Your task to perform on an android device: Go to Google Image 0: 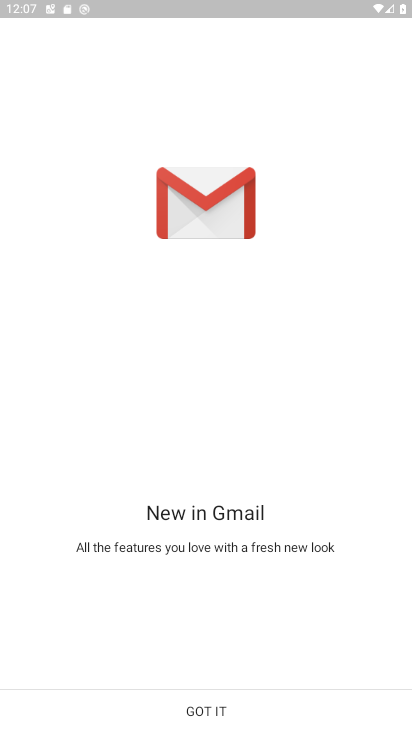
Step 0: press home button
Your task to perform on an android device: Go to Google Image 1: 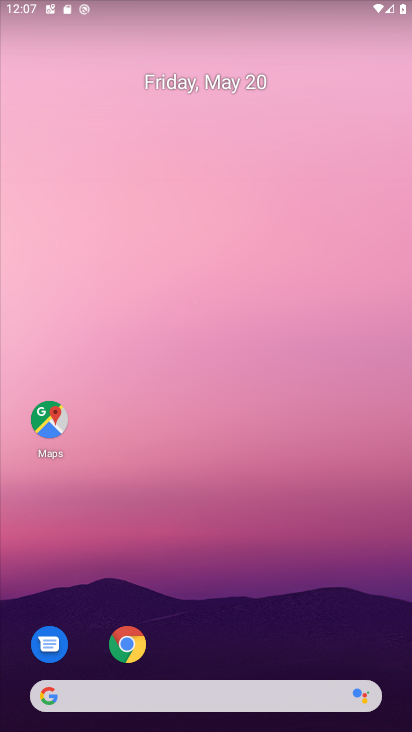
Step 1: drag from (233, 503) to (235, 150)
Your task to perform on an android device: Go to Google Image 2: 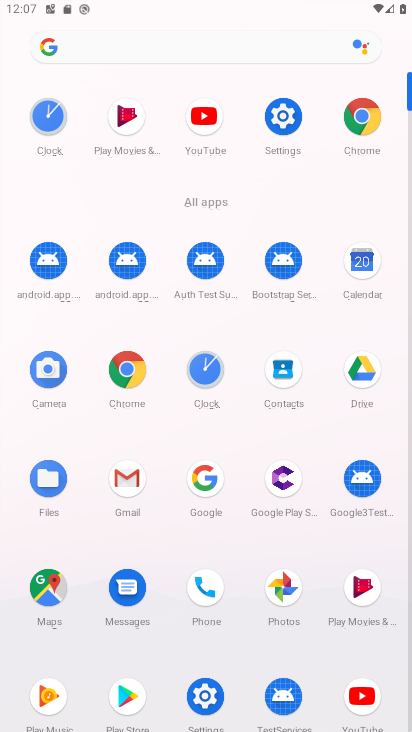
Step 2: click (211, 481)
Your task to perform on an android device: Go to Google Image 3: 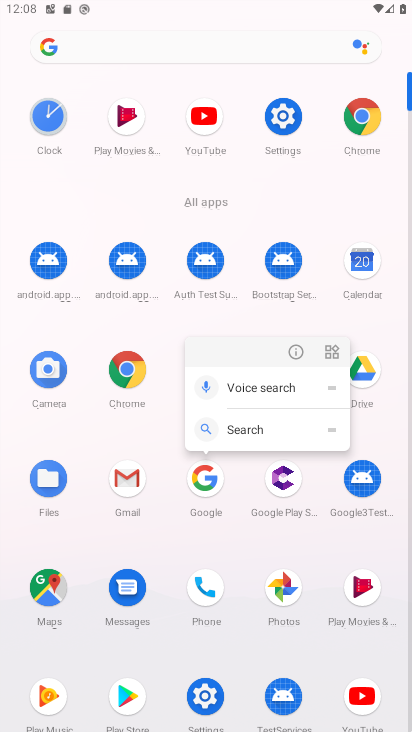
Step 3: click (206, 481)
Your task to perform on an android device: Go to Google Image 4: 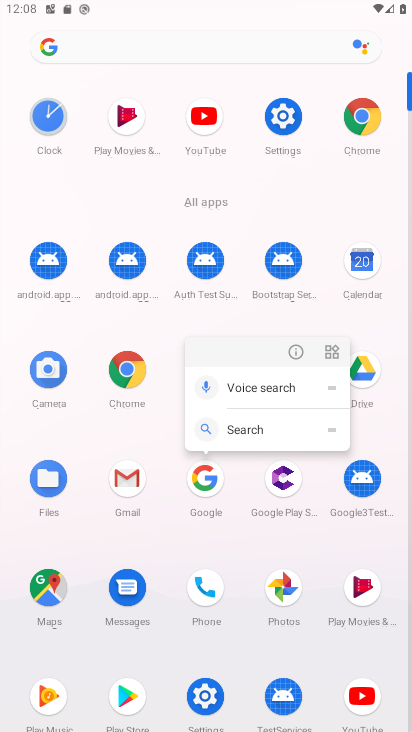
Step 4: click (193, 476)
Your task to perform on an android device: Go to Google Image 5: 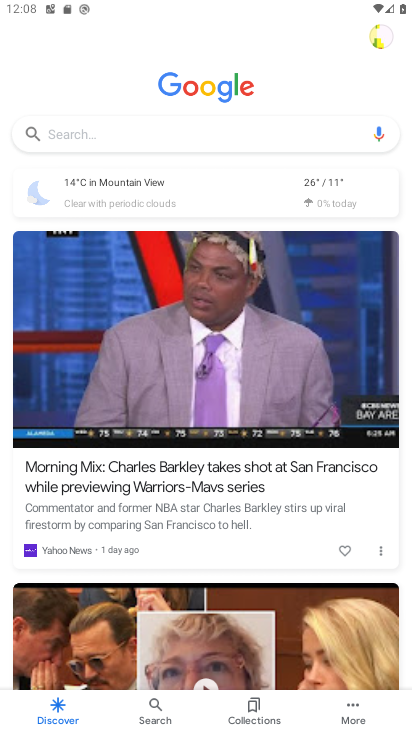
Step 5: task complete